Your task to perform on an android device: What's on my calendar today? Image 0: 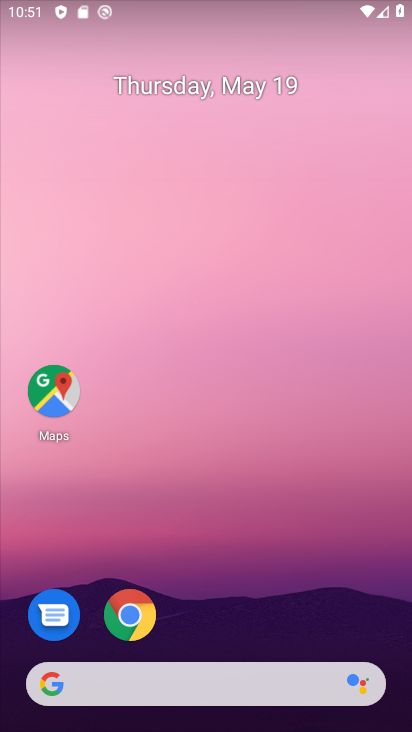
Step 0: drag from (347, 606) to (325, 138)
Your task to perform on an android device: What's on my calendar today? Image 1: 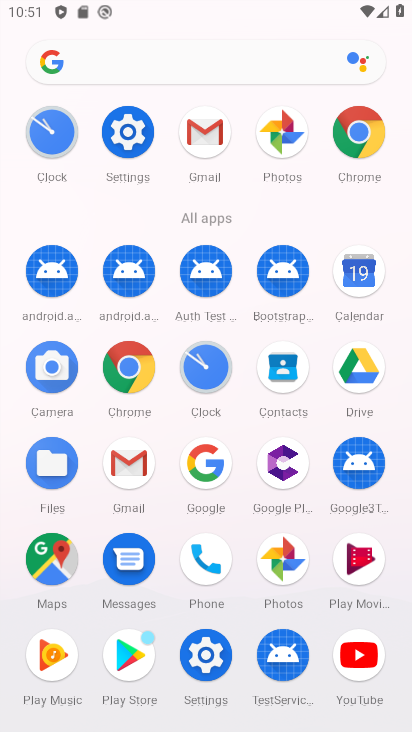
Step 1: click (358, 288)
Your task to perform on an android device: What's on my calendar today? Image 2: 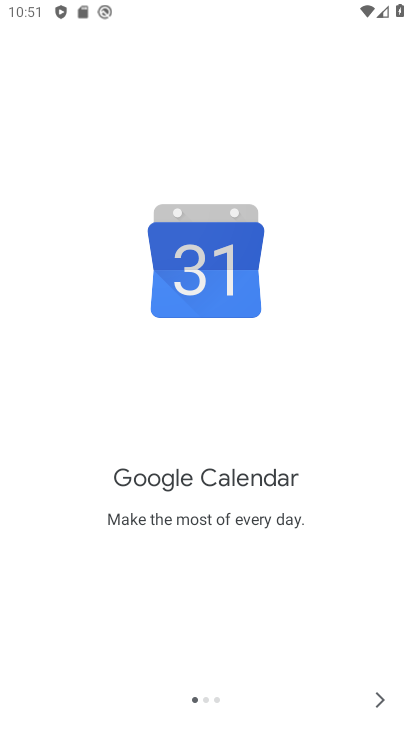
Step 2: click (378, 688)
Your task to perform on an android device: What's on my calendar today? Image 3: 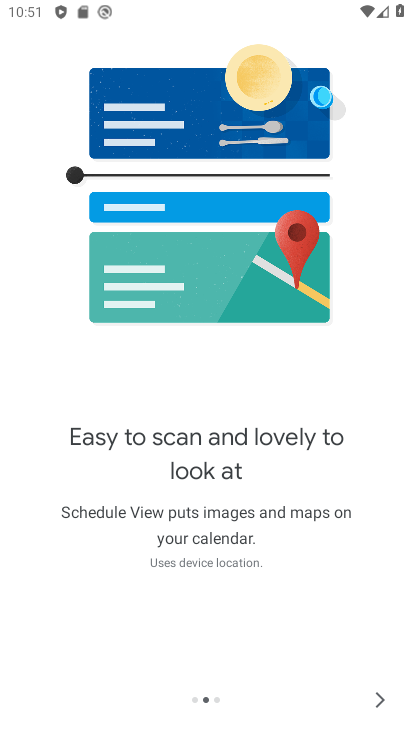
Step 3: click (378, 688)
Your task to perform on an android device: What's on my calendar today? Image 4: 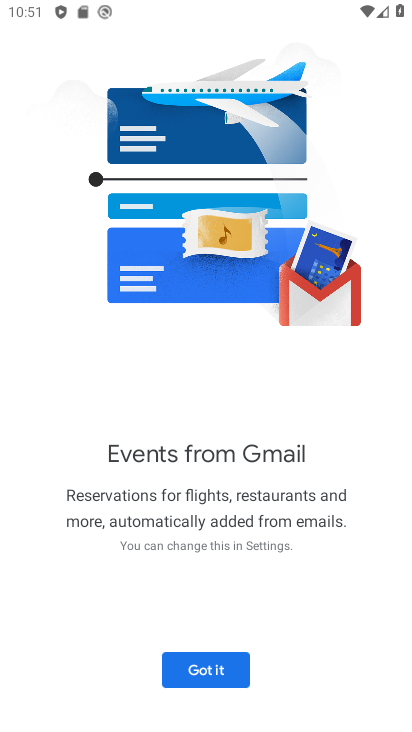
Step 4: click (164, 667)
Your task to perform on an android device: What's on my calendar today? Image 5: 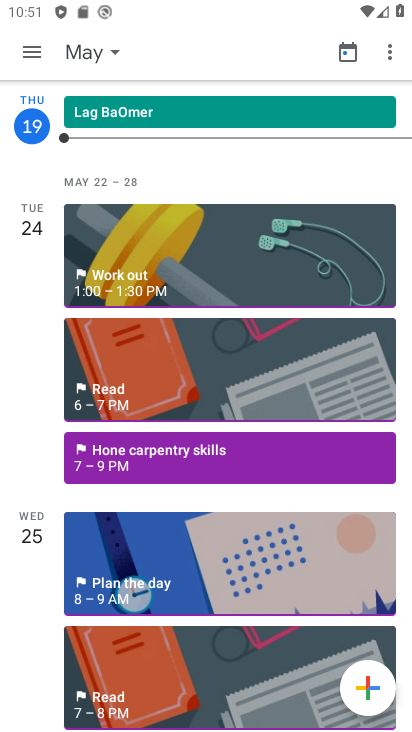
Step 5: click (37, 65)
Your task to perform on an android device: What's on my calendar today? Image 6: 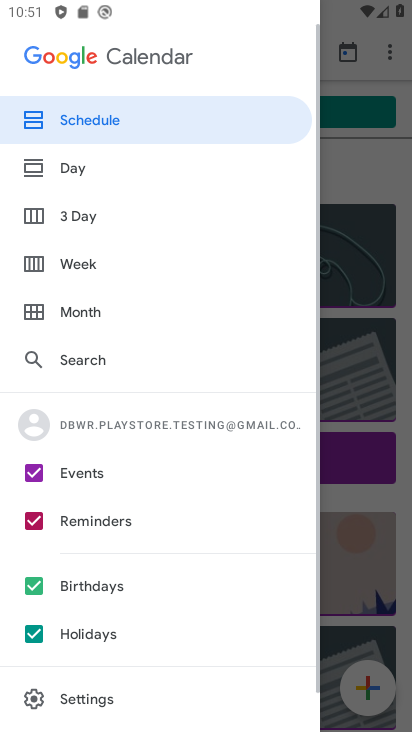
Step 6: click (67, 174)
Your task to perform on an android device: What's on my calendar today? Image 7: 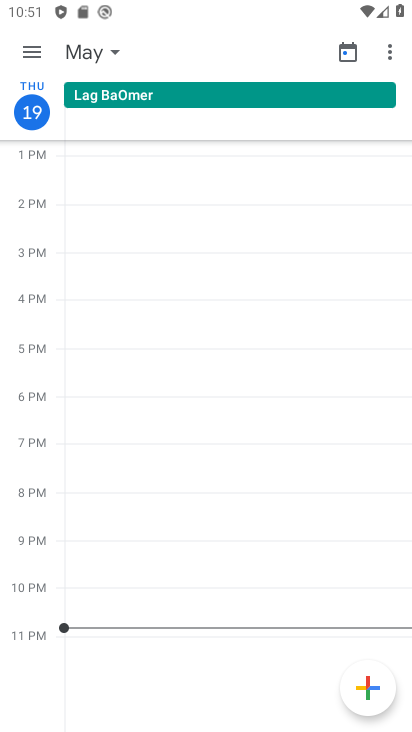
Step 7: task complete